Your task to perform on an android device: empty trash in google photos Image 0: 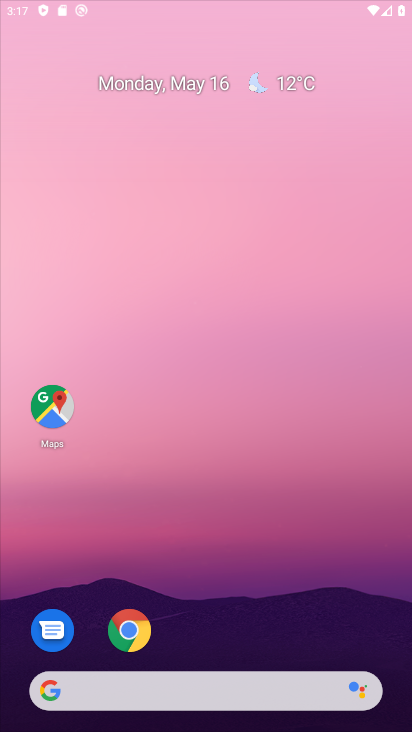
Step 0: click (285, 116)
Your task to perform on an android device: empty trash in google photos Image 1: 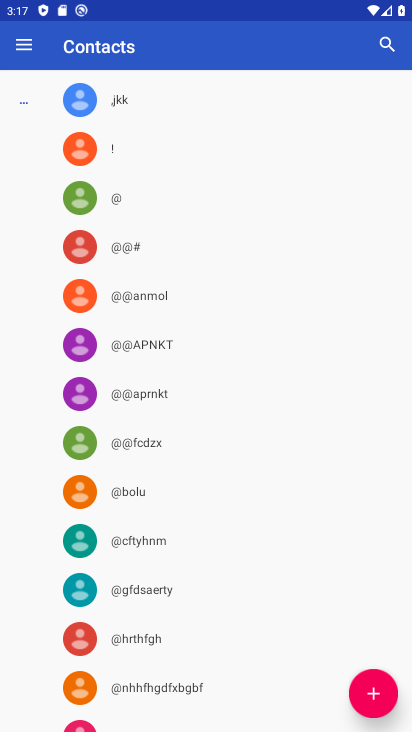
Step 1: press home button
Your task to perform on an android device: empty trash in google photos Image 2: 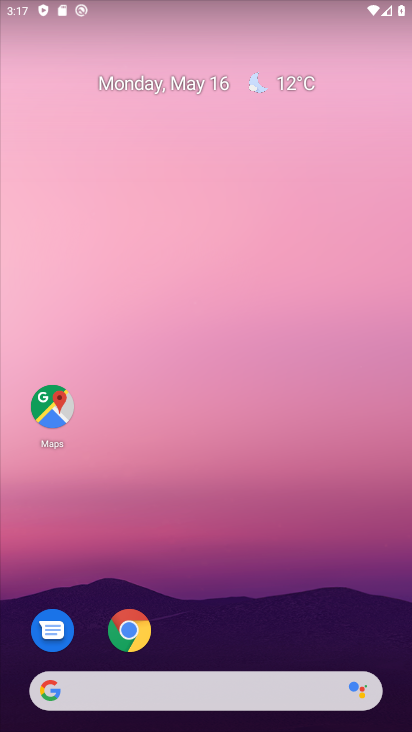
Step 2: drag from (195, 662) to (323, 62)
Your task to perform on an android device: empty trash in google photos Image 3: 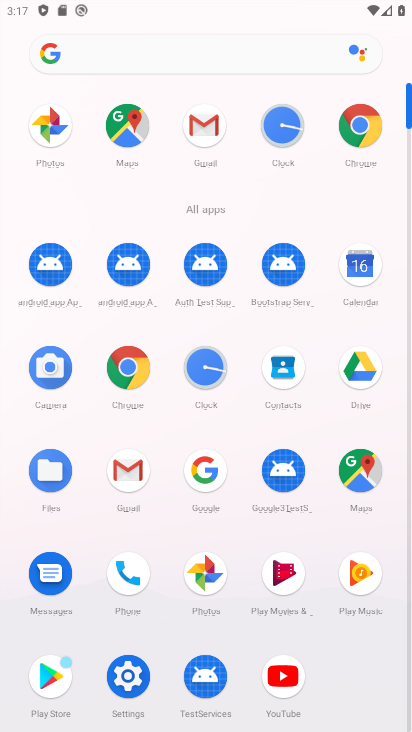
Step 3: click (199, 586)
Your task to perform on an android device: empty trash in google photos Image 4: 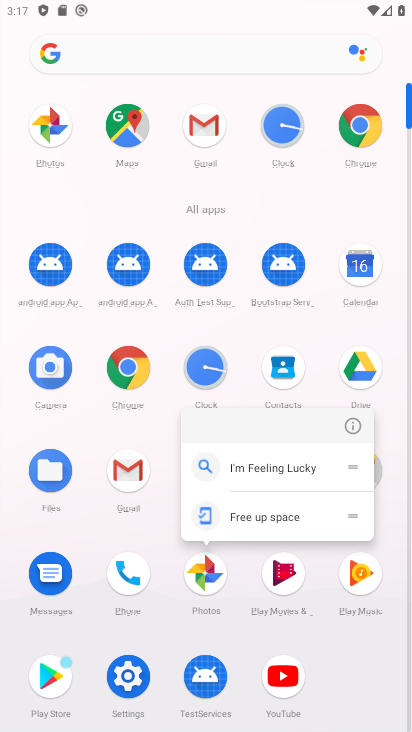
Step 4: click (216, 571)
Your task to perform on an android device: empty trash in google photos Image 5: 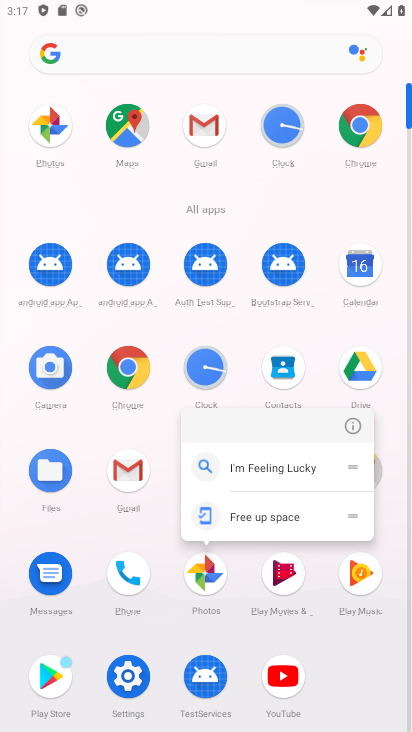
Step 5: click (211, 569)
Your task to perform on an android device: empty trash in google photos Image 6: 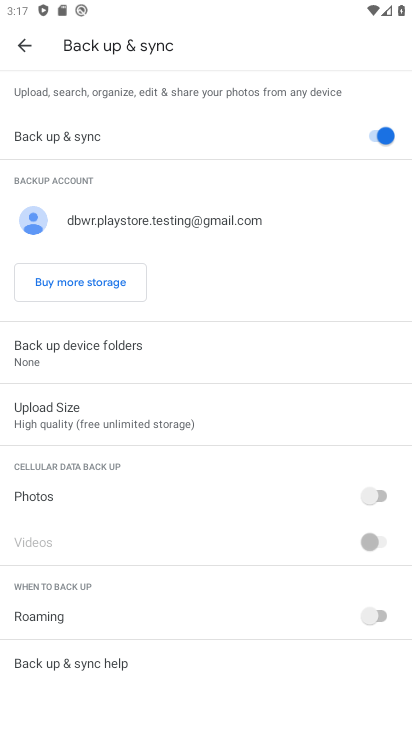
Step 6: click (37, 45)
Your task to perform on an android device: empty trash in google photos Image 7: 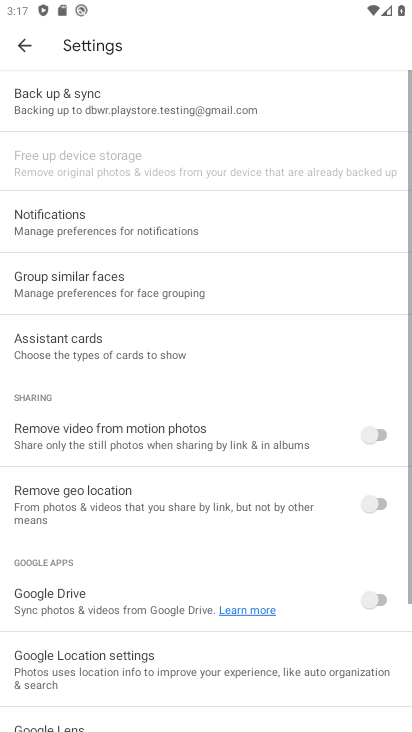
Step 7: click (37, 45)
Your task to perform on an android device: empty trash in google photos Image 8: 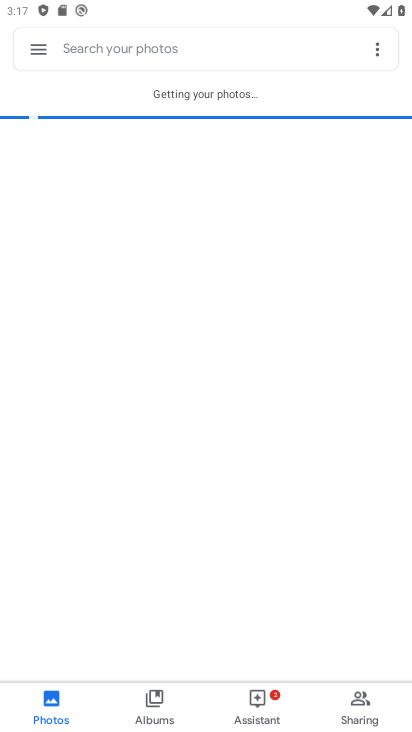
Step 8: click (43, 54)
Your task to perform on an android device: empty trash in google photos Image 9: 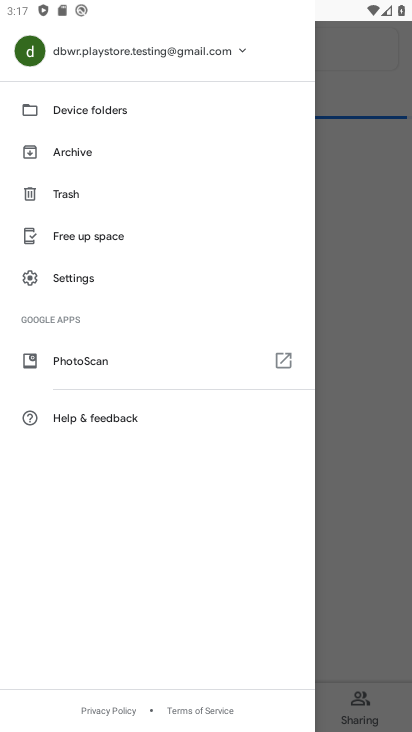
Step 9: click (112, 201)
Your task to perform on an android device: empty trash in google photos Image 10: 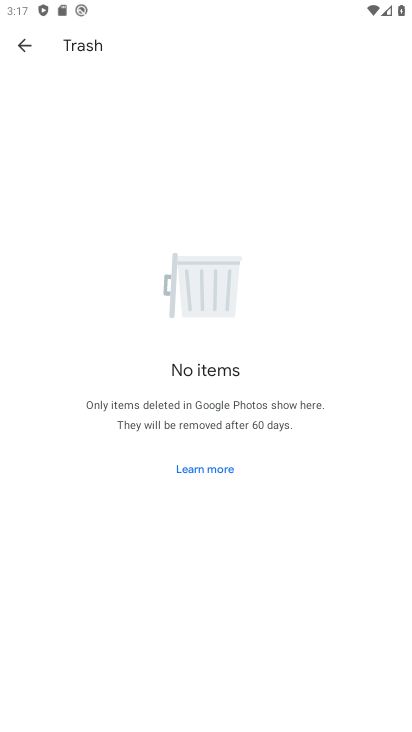
Step 10: task complete